Your task to perform on an android device: Open the calendar app, open the side menu, and click the "Day" option Image 0: 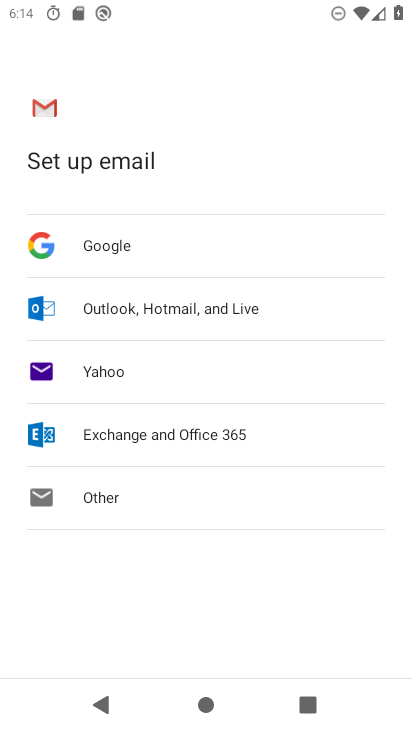
Step 0: press home button
Your task to perform on an android device: Open the calendar app, open the side menu, and click the "Day" option Image 1: 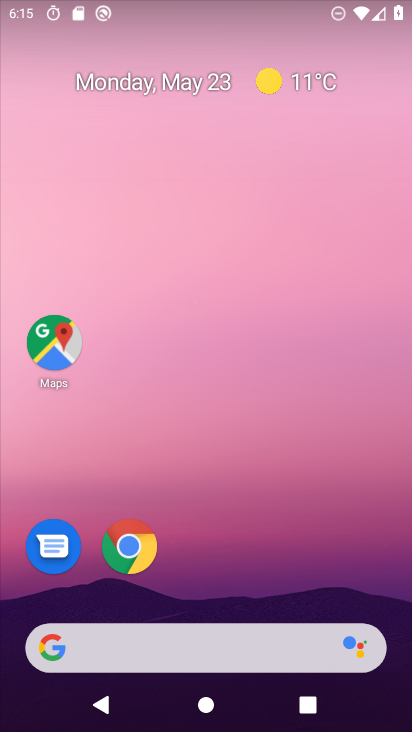
Step 1: drag from (299, 579) to (245, 105)
Your task to perform on an android device: Open the calendar app, open the side menu, and click the "Day" option Image 2: 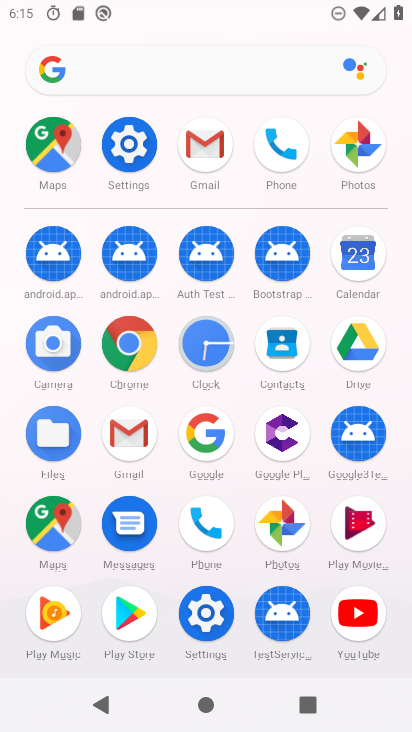
Step 2: click (356, 251)
Your task to perform on an android device: Open the calendar app, open the side menu, and click the "Day" option Image 3: 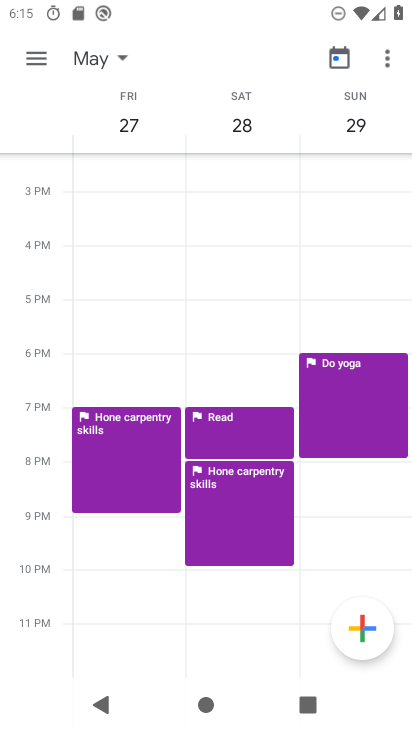
Step 3: click (43, 61)
Your task to perform on an android device: Open the calendar app, open the side menu, and click the "Day" option Image 4: 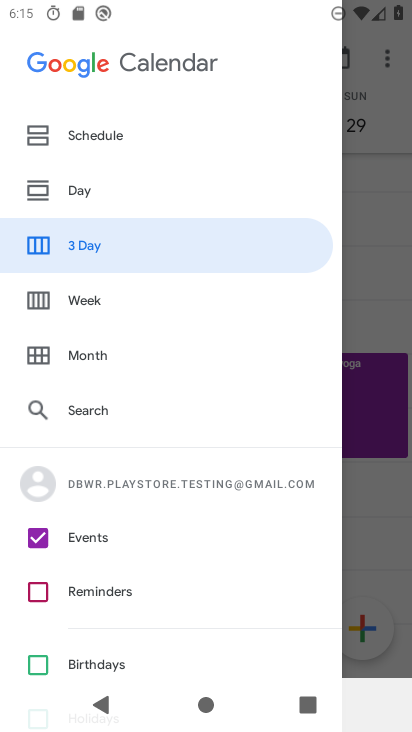
Step 4: click (91, 188)
Your task to perform on an android device: Open the calendar app, open the side menu, and click the "Day" option Image 5: 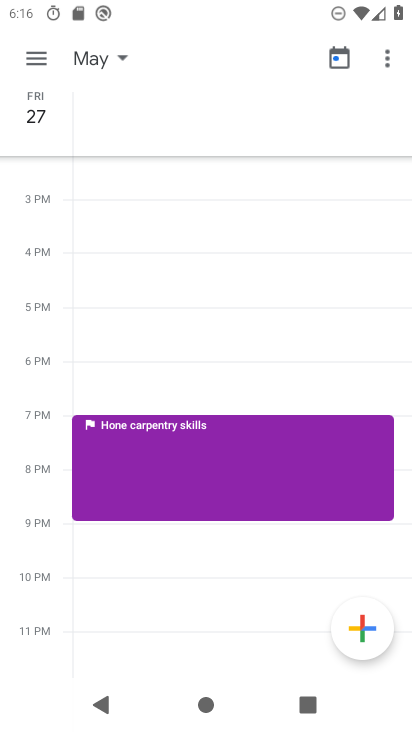
Step 5: task complete